Your task to perform on an android device: set an alarm Image 0: 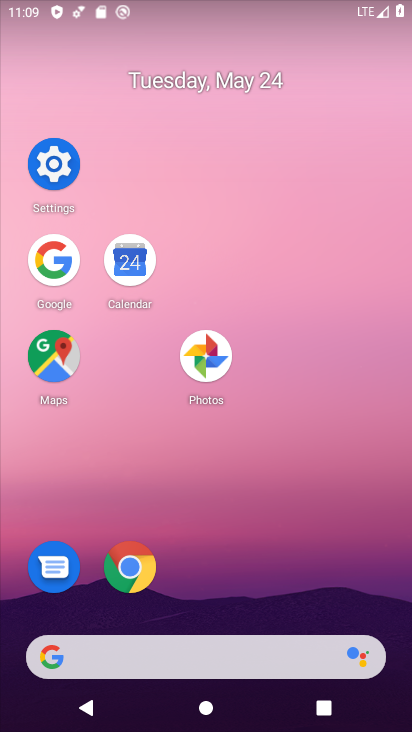
Step 0: drag from (287, 566) to (382, 14)
Your task to perform on an android device: set an alarm Image 1: 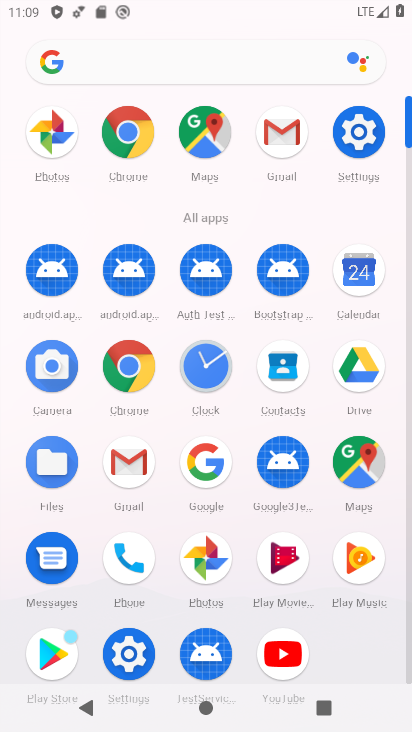
Step 1: drag from (199, 372) to (205, 265)
Your task to perform on an android device: set an alarm Image 2: 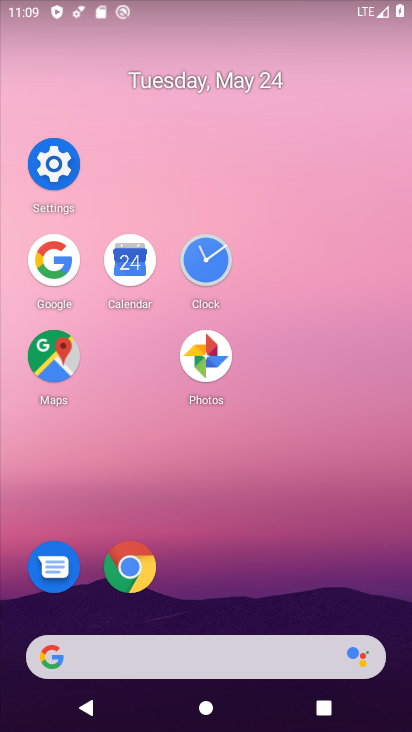
Step 2: click (197, 270)
Your task to perform on an android device: set an alarm Image 3: 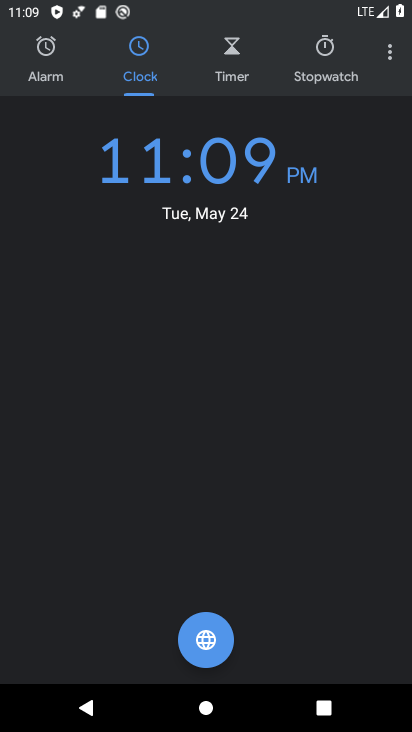
Step 3: click (54, 72)
Your task to perform on an android device: set an alarm Image 4: 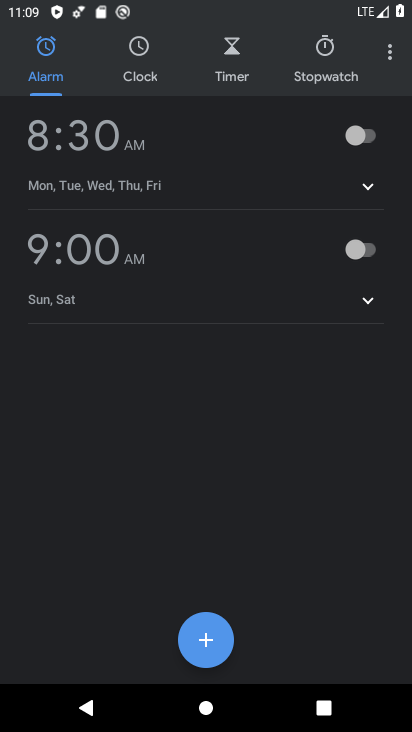
Step 4: click (383, 137)
Your task to perform on an android device: set an alarm Image 5: 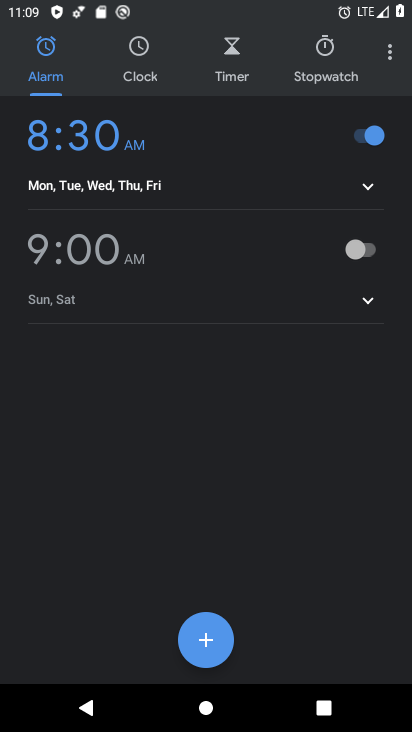
Step 5: task complete